Your task to perform on an android device: What's on my calendar tomorrow? Image 0: 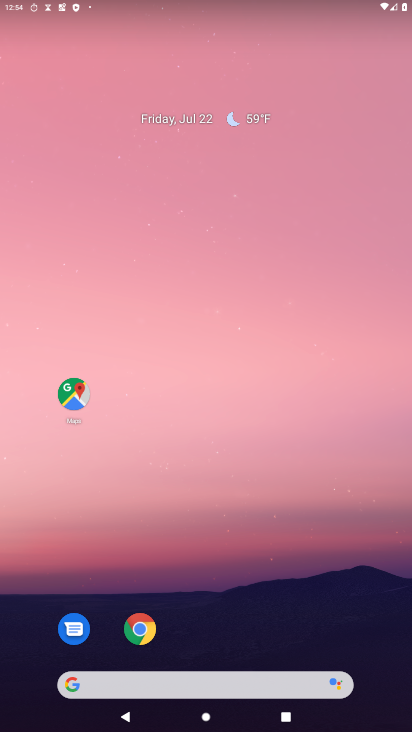
Step 0: drag from (223, 701) to (289, 116)
Your task to perform on an android device: What's on my calendar tomorrow? Image 1: 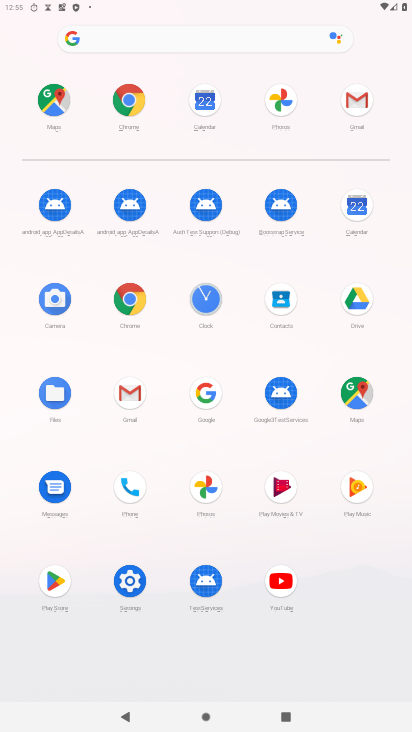
Step 1: click (353, 207)
Your task to perform on an android device: What's on my calendar tomorrow? Image 2: 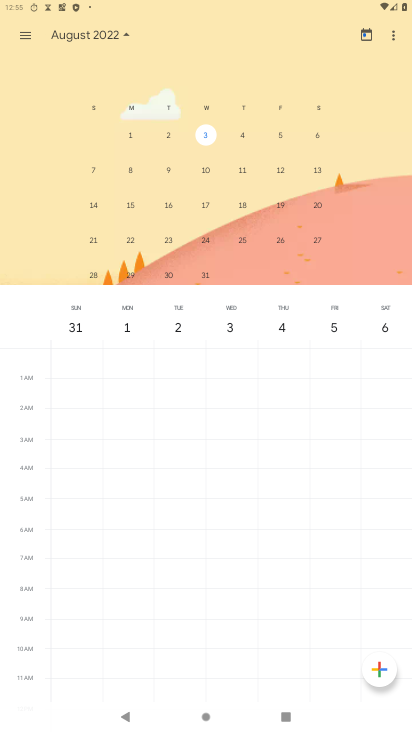
Step 2: drag from (87, 155) to (398, 158)
Your task to perform on an android device: What's on my calendar tomorrow? Image 3: 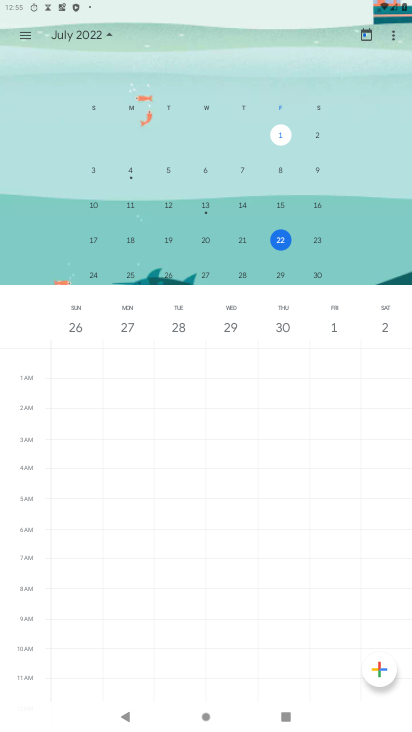
Step 3: click (320, 241)
Your task to perform on an android device: What's on my calendar tomorrow? Image 4: 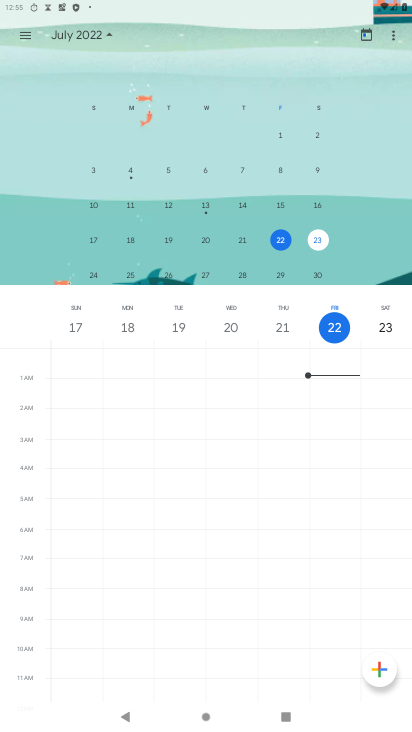
Step 4: task complete